Your task to perform on an android device: Open Youtube and go to "Your channel" Image 0: 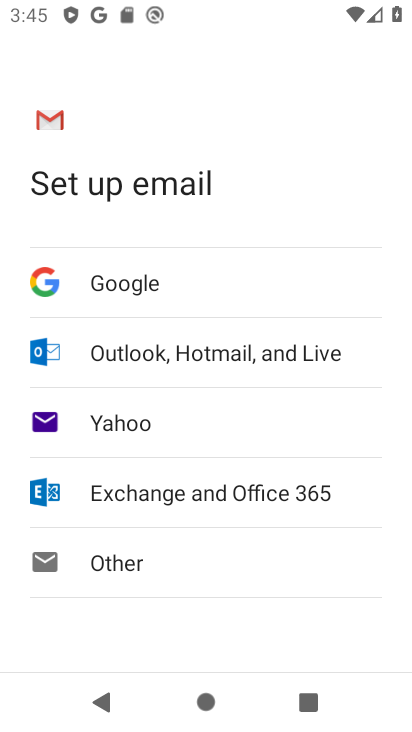
Step 0: task complete